Your task to perform on an android device: check the backup settings in the google photos Image 0: 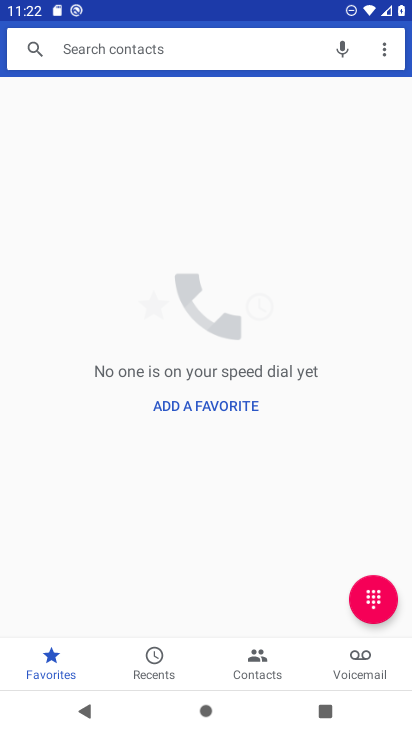
Step 0: press home button
Your task to perform on an android device: check the backup settings in the google photos Image 1: 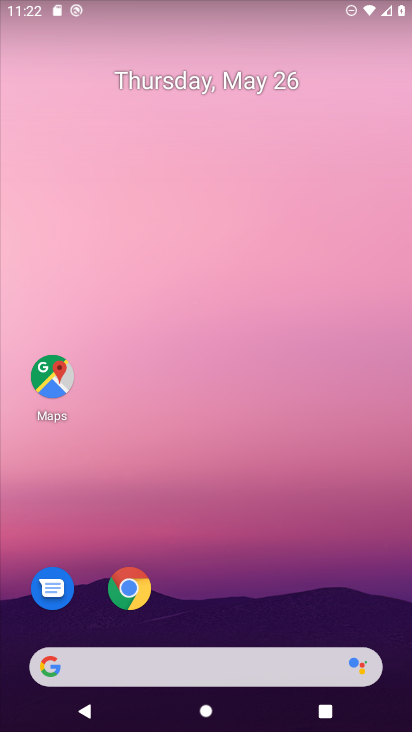
Step 1: drag from (378, 621) to (332, 48)
Your task to perform on an android device: check the backup settings in the google photos Image 2: 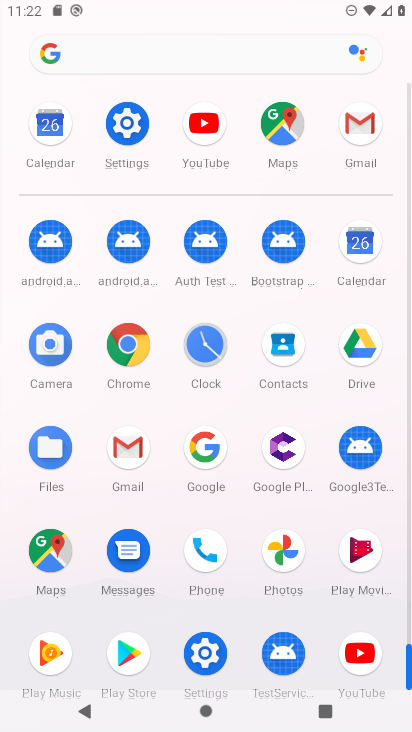
Step 2: click (282, 550)
Your task to perform on an android device: check the backup settings in the google photos Image 3: 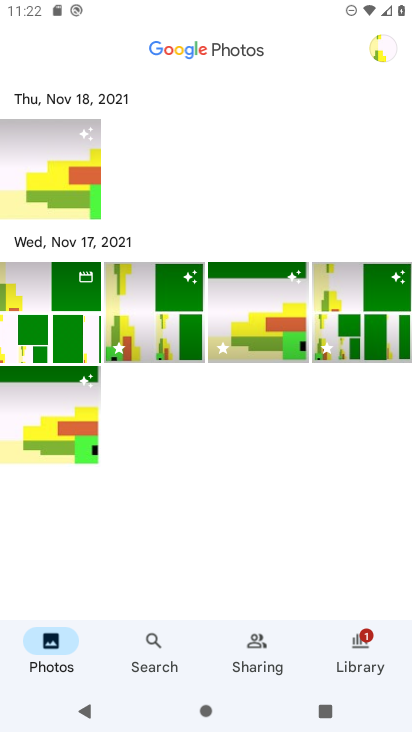
Step 3: click (382, 51)
Your task to perform on an android device: check the backup settings in the google photos Image 4: 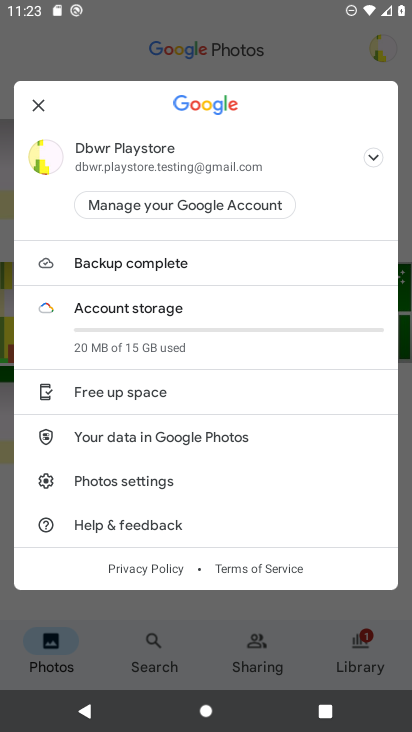
Step 4: click (95, 479)
Your task to perform on an android device: check the backup settings in the google photos Image 5: 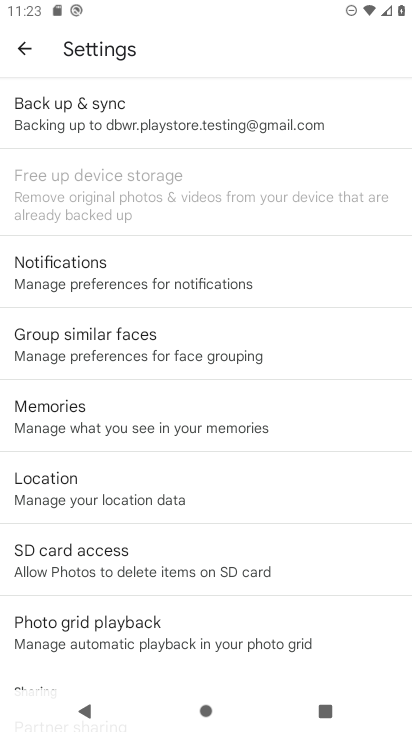
Step 5: click (70, 116)
Your task to perform on an android device: check the backup settings in the google photos Image 6: 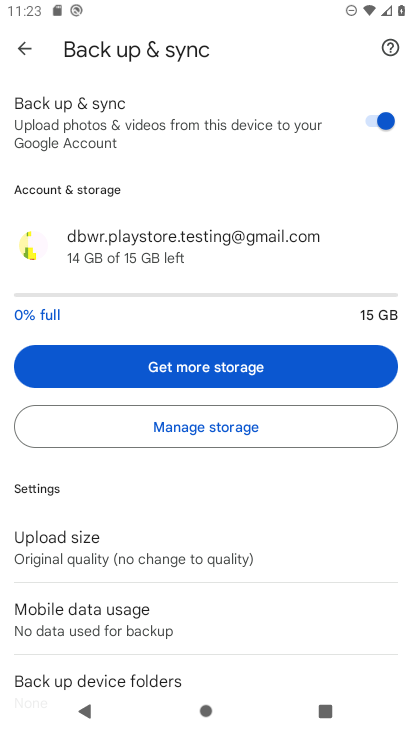
Step 6: task complete